Your task to perform on an android device: turn notification dots off Image 0: 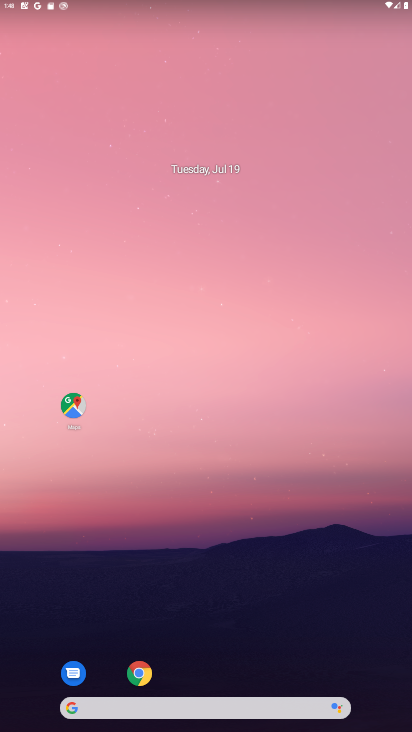
Step 0: drag from (105, 672) to (357, 0)
Your task to perform on an android device: turn notification dots off Image 1: 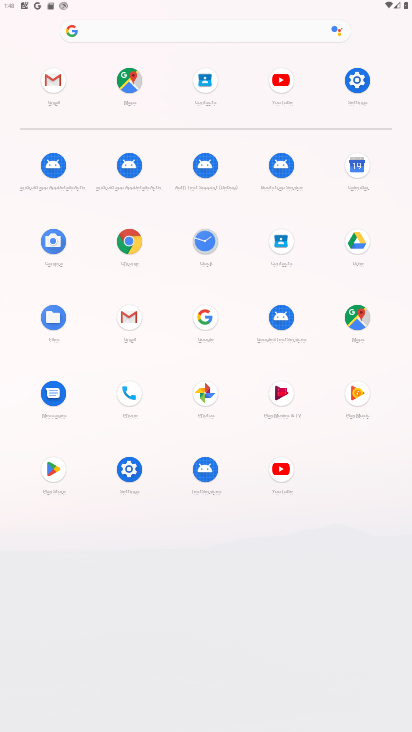
Step 1: click (352, 78)
Your task to perform on an android device: turn notification dots off Image 2: 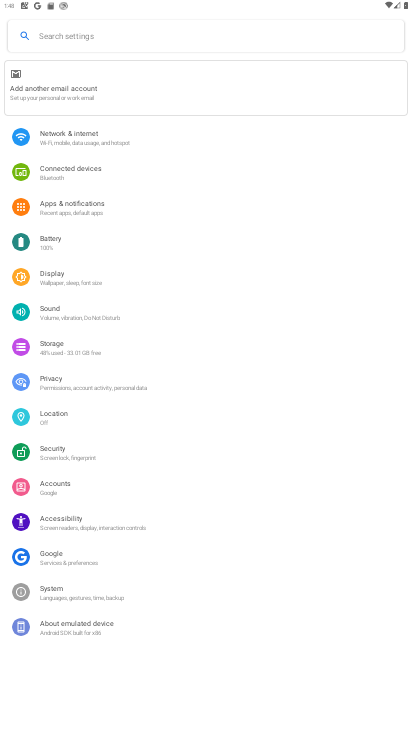
Step 2: click (124, 208)
Your task to perform on an android device: turn notification dots off Image 3: 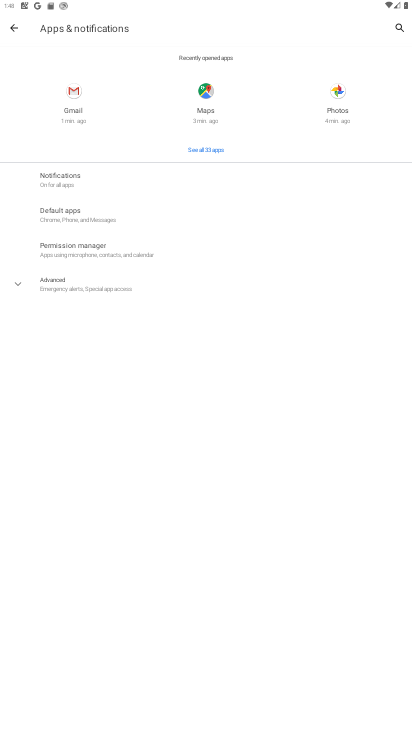
Step 3: click (116, 176)
Your task to perform on an android device: turn notification dots off Image 4: 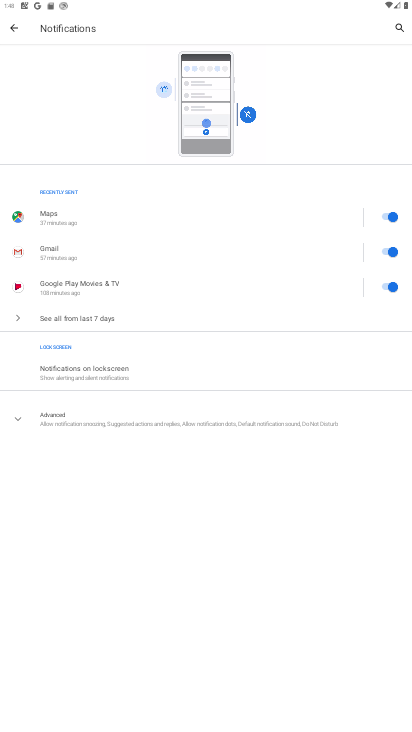
Step 4: click (135, 376)
Your task to perform on an android device: turn notification dots off Image 5: 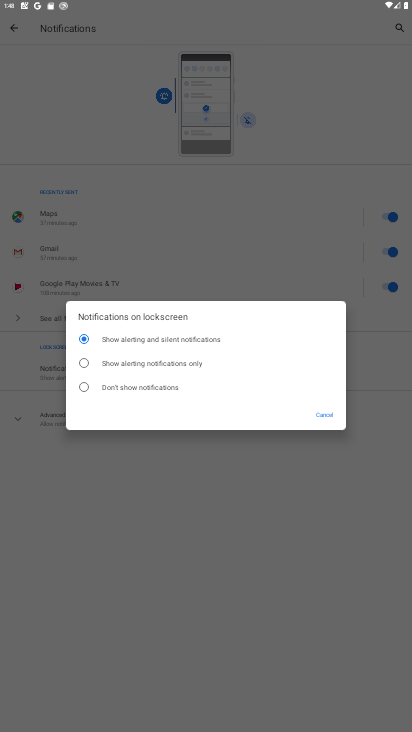
Step 5: click (238, 550)
Your task to perform on an android device: turn notification dots off Image 6: 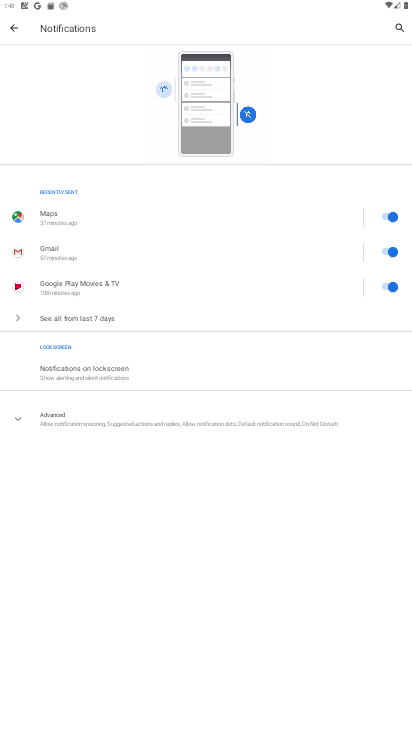
Step 6: click (127, 420)
Your task to perform on an android device: turn notification dots off Image 7: 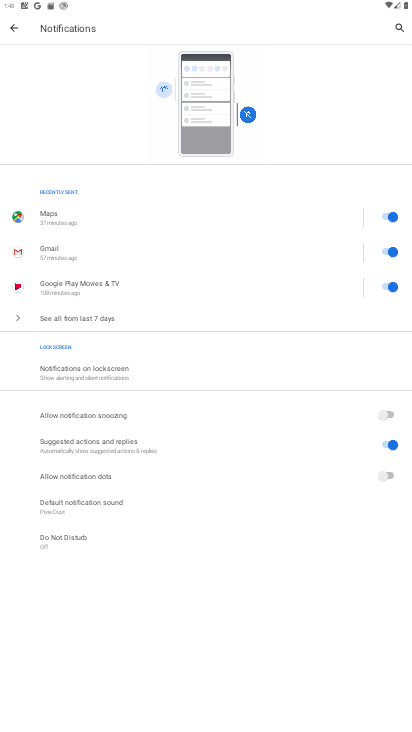
Step 7: task complete